Your task to perform on an android device: Go to Google Image 0: 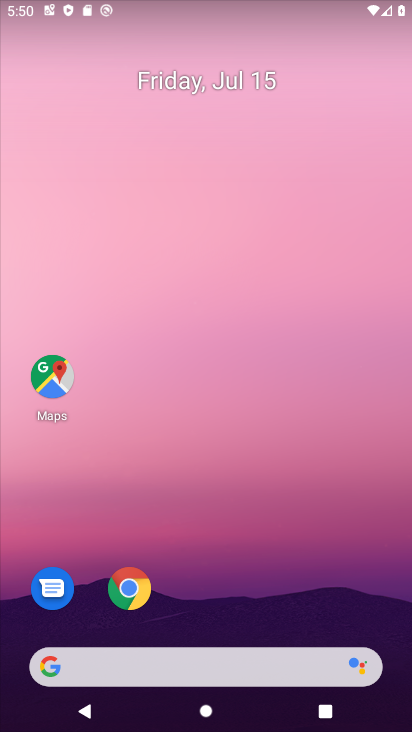
Step 0: drag from (196, 613) to (286, 0)
Your task to perform on an android device: Go to Google Image 1: 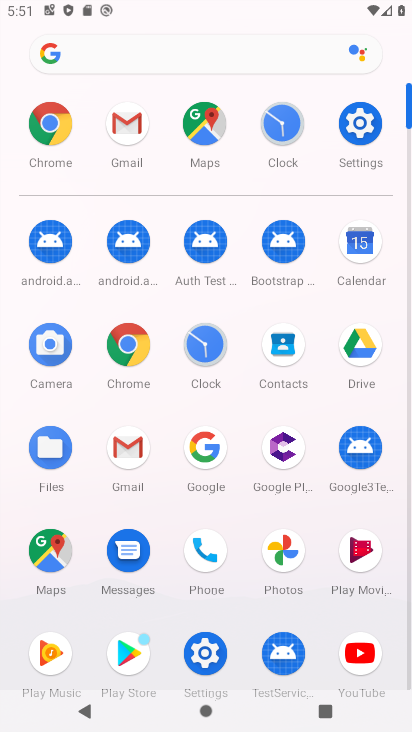
Step 1: click (114, 346)
Your task to perform on an android device: Go to Google Image 2: 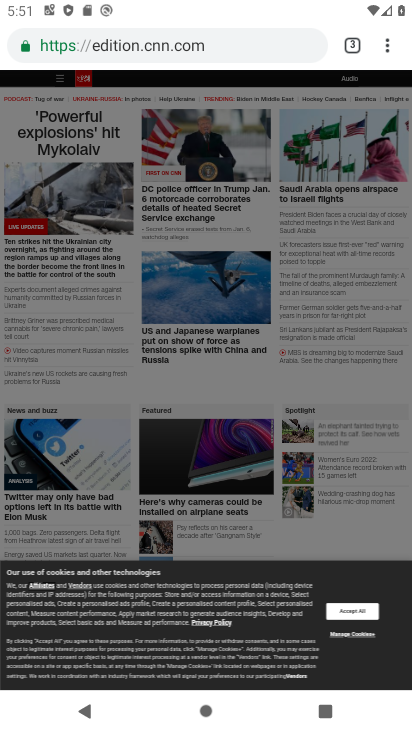
Step 2: click (391, 48)
Your task to perform on an android device: Go to Google Image 3: 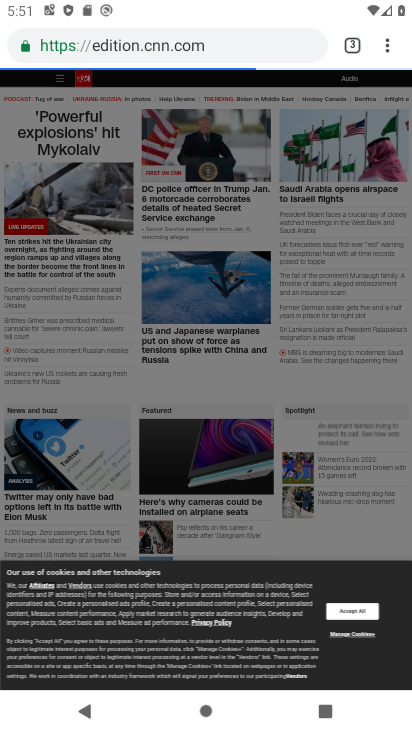
Step 3: task complete